Your task to perform on an android device: Do I have any events today? Image 0: 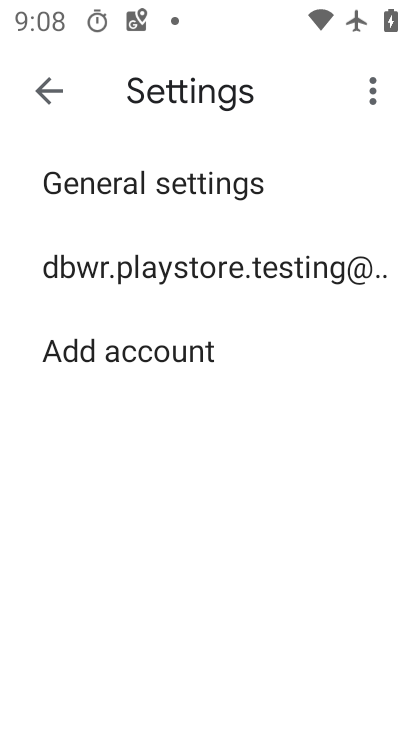
Step 0: press home button
Your task to perform on an android device: Do I have any events today? Image 1: 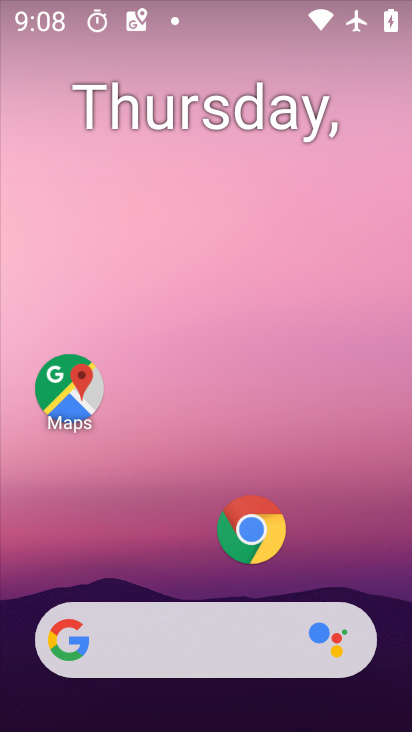
Step 1: drag from (196, 581) to (213, 133)
Your task to perform on an android device: Do I have any events today? Image 2: 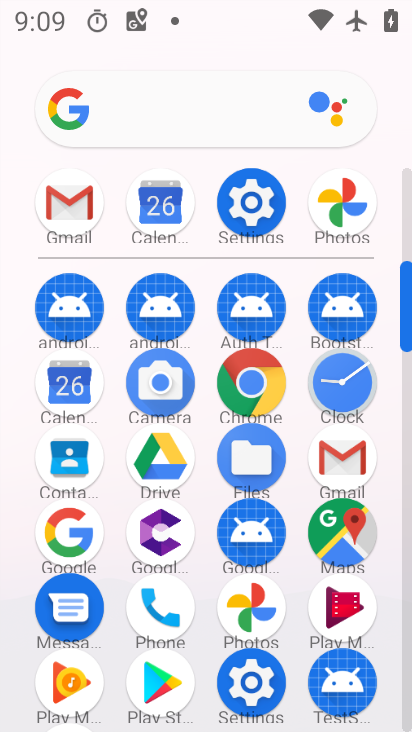
Step 2: click (68, 381)
Your task to perform on an android device: Do I have any events today? Image 3: 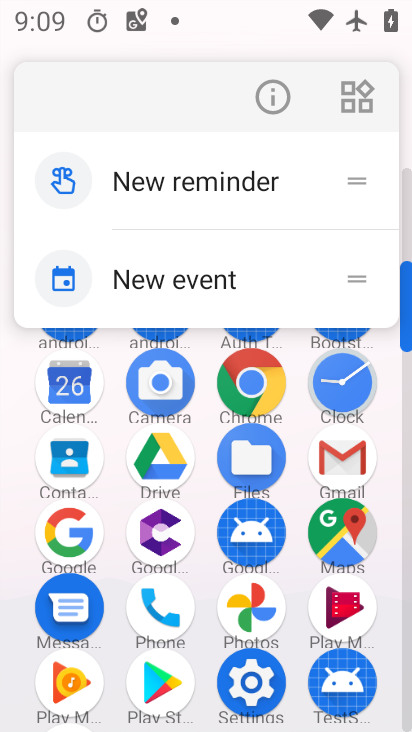
Step 3: click (67, 380)
Your task to perform on an android device: Do I have any events today? Image 4: 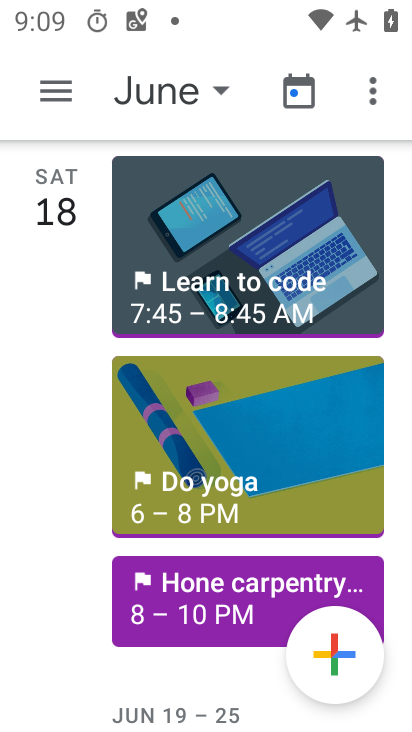
Step 4: click (173, 87)
Your task to perform on an android device: Do I have any events today? Image 5: 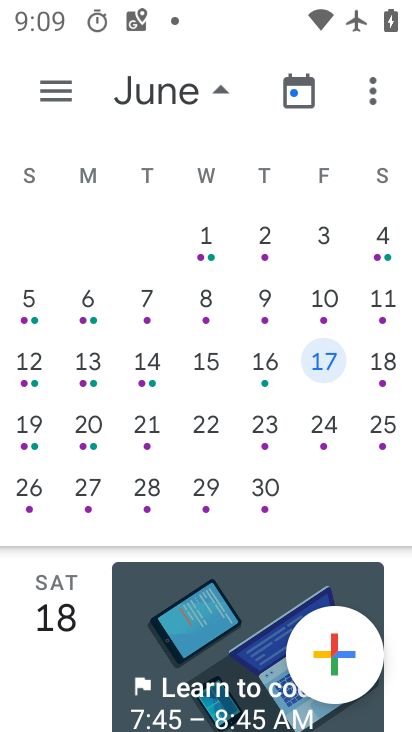
Step 5: drag from (37, 366) to (373, 324)
Your task to perform on an android device: Do I have any events today? Image 6: 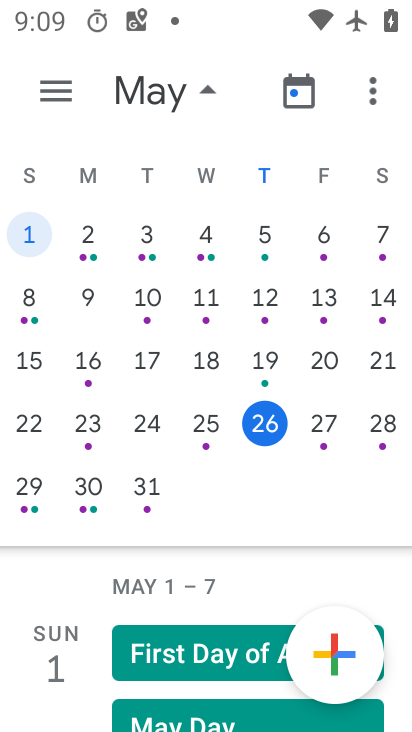
Step 6: click (268, 429)
Your task to perform on an android device: Do I have any events today? Image 7: 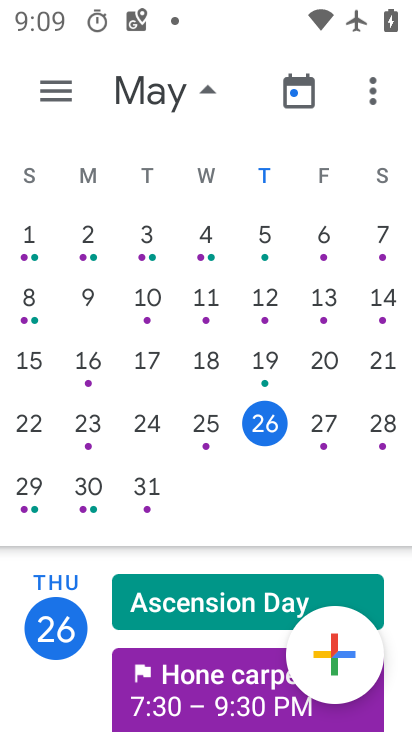
Step 7: click (202, 80)
Your task to perform on an android device: Do I have any events today? Image 8: 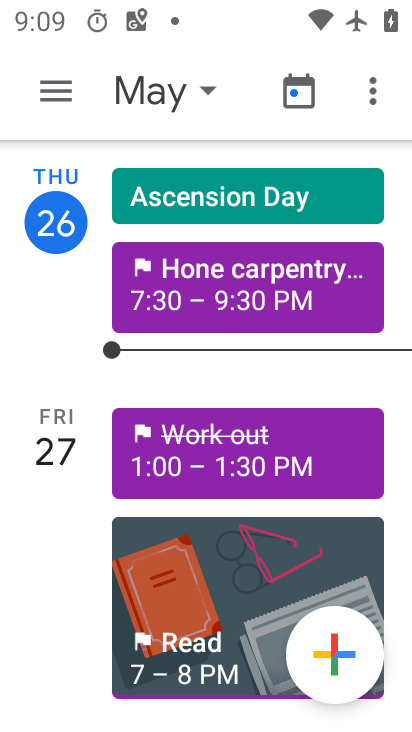
Step 8: click (94, 191)
Your task to perform on an android device: Do I have any events today? Image 9: 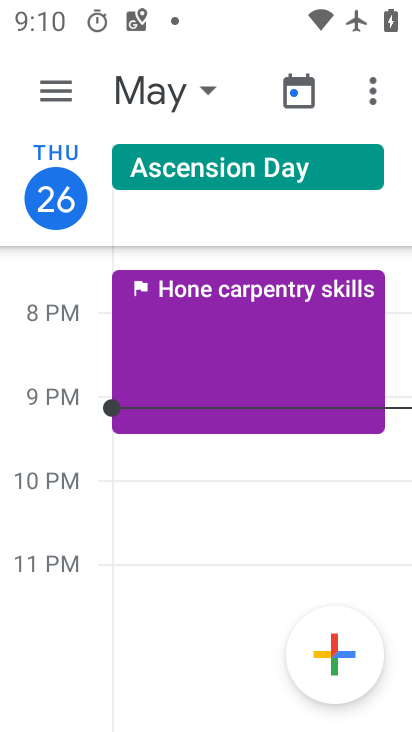
Step 9: task complete